Your task to perform on an android device: turn off smart reply in the gmail app Image 0: 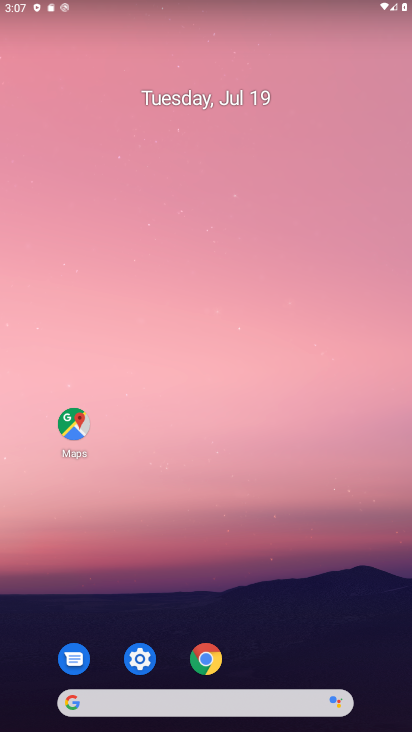
Step 0: drag from (246, 708) to (217, 258)
Your task to perform on an android device: turn off smart reply in the gmail app Image 1: 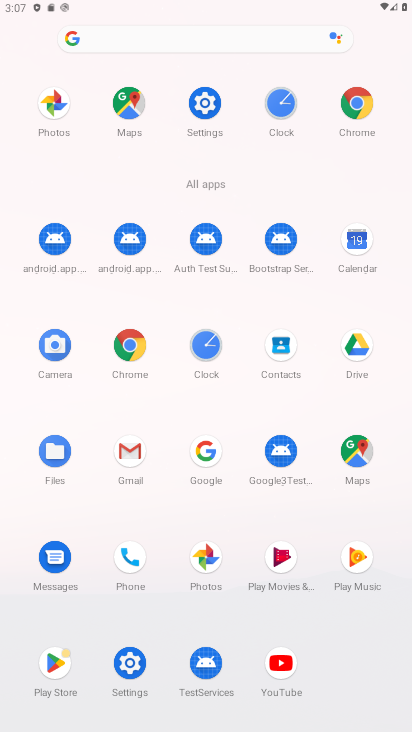
Step 1: click (132, 453)
Your task to perform on an android device: turn off smart reply in the gmail app Image 2: 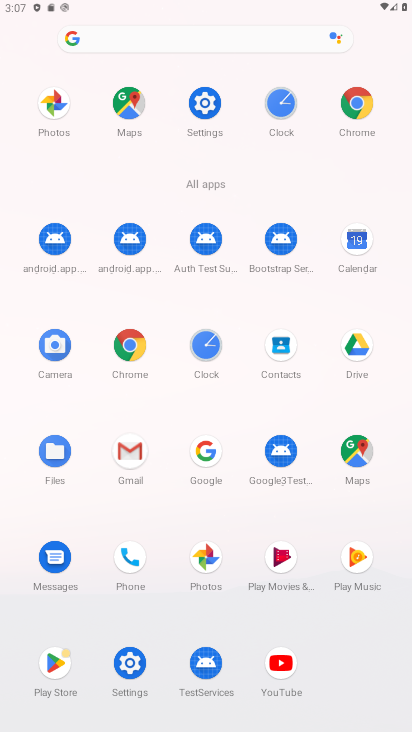
Step 2: click (133, 451)
Your task to perform on an android device: turn off smart reply in the gmail app Image 3: 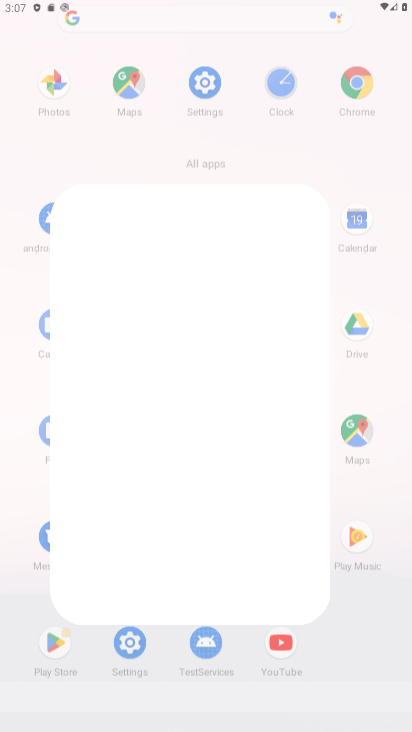
Step 3: click (135, 449)
Your task to perform on an android device: turn off smart reply in the gmail app Image 4: 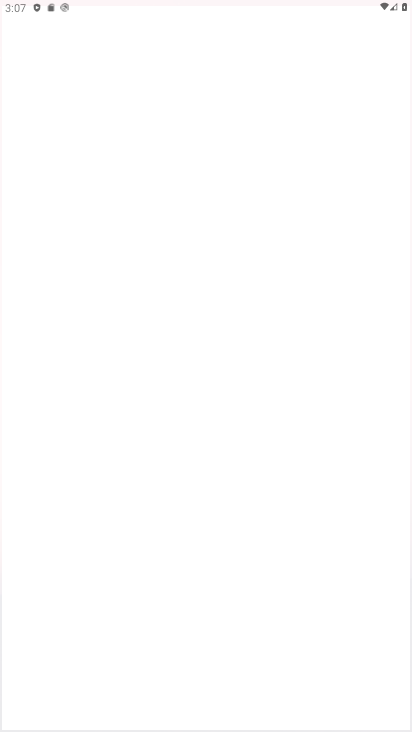
Step 4: click (135, 449)
Your task to perform on an android device: turn off smart reply in the gmail app Image 5: 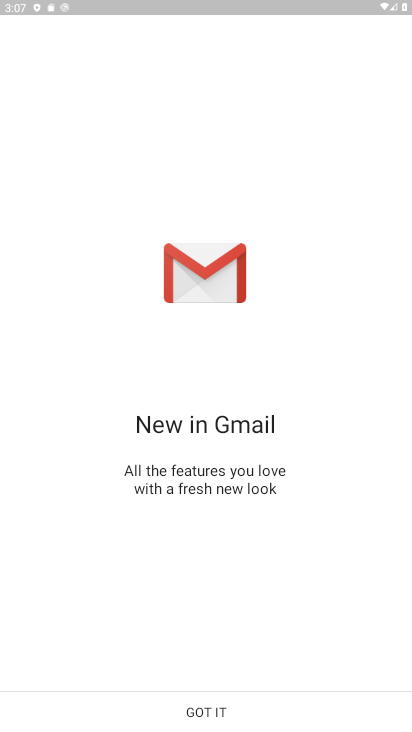
Step 5: click (211, 700)
Your task to perform on an android device: turn off smart reply in the gmail app Image 6: 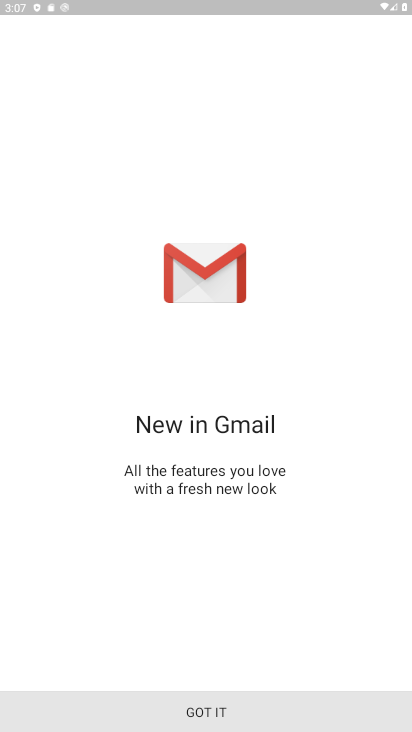
Step 6: click (212, 702)
Your task to perform on an android device: turn off smart reply in the gmail app Image 7: 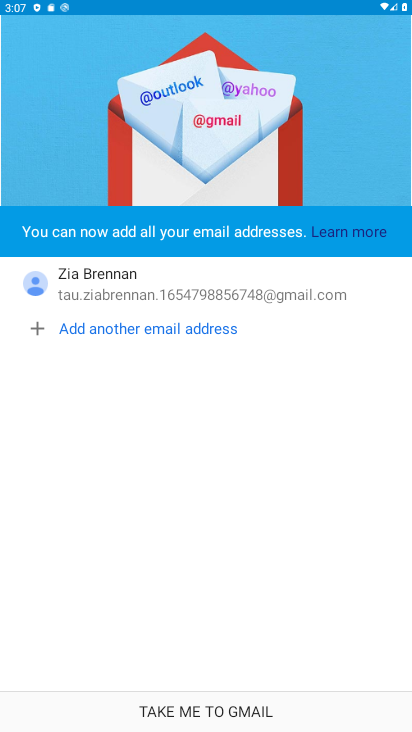
Step 7: click (218, 705)
Your task to perform on an android device: turn off smart reply in the gmail app Image 8: 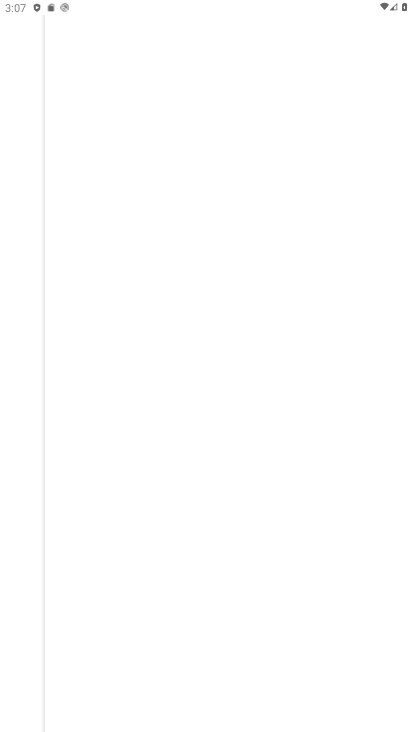
Step 8: click (226, 712)
Your task to perform on an android device: turn off smart reply in the gmail app Image 9: 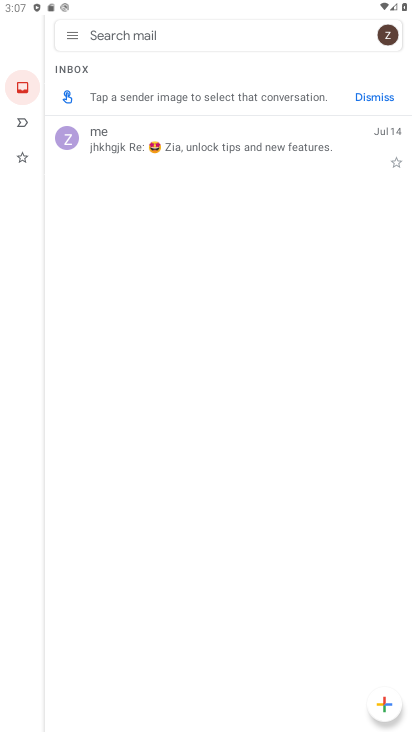
Step 9: click (62, 29)
Your task to perform on an android device: turn off smart reply in the gmail app Image 10: 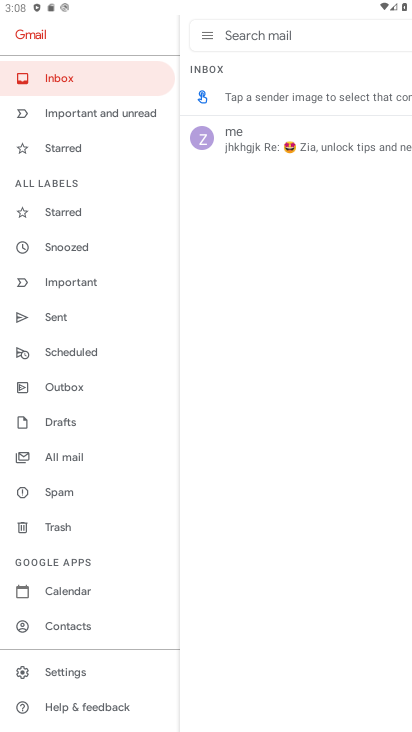
Step 10: click (48, 675)
Your task to perform on an android device: turn off smart reply in the gmail app Image 11: 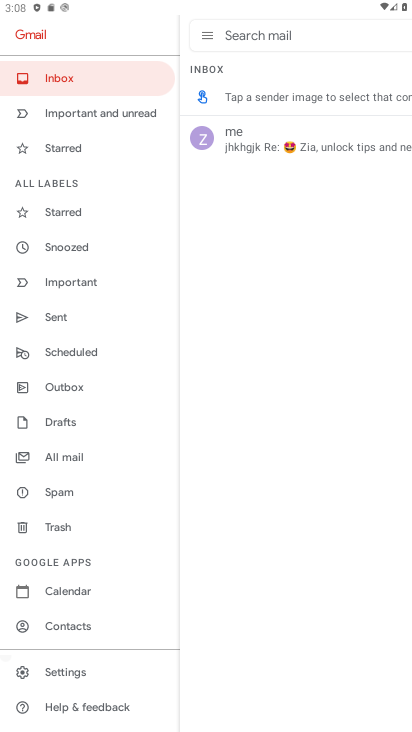
Step 11: click (55, 670)
Your task to perform on an android device: turn off smart reply in the gmail app Image 12: 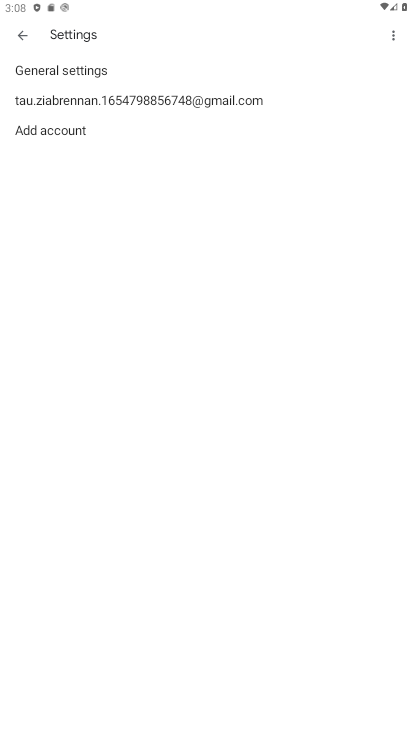
Step 12: click (109, 108)
Your task to perform on an android device: turn off smart reply in the gmail app Image 13: 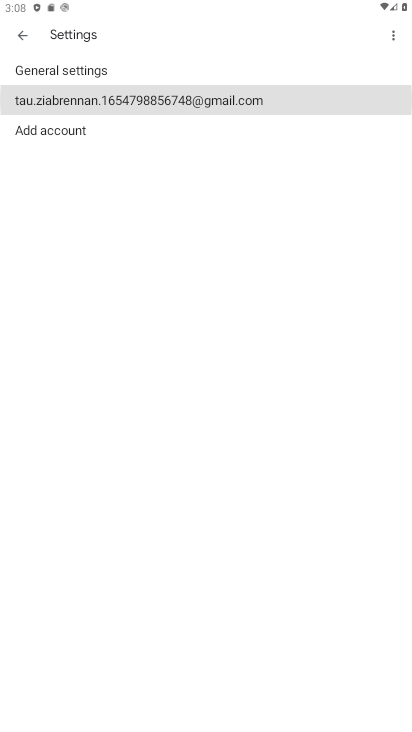
Step 13: click (108, 96)
Your task to perform on an android device: turn off smart reply in the gmail app Image 14: 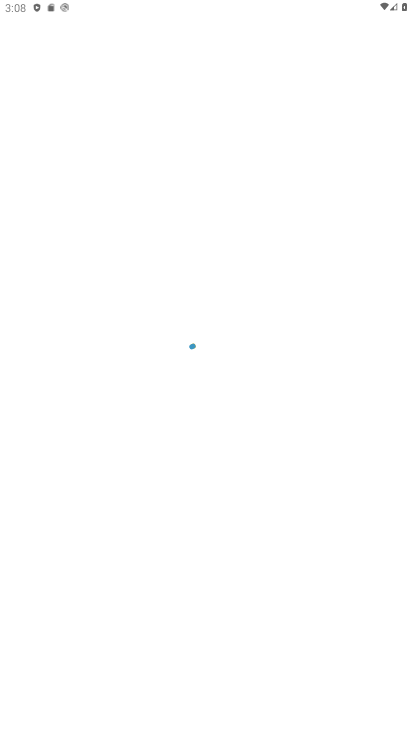
Step 14: press back button
Your task to perform on an android device: turn off smart reply in the gmail app Image 15: 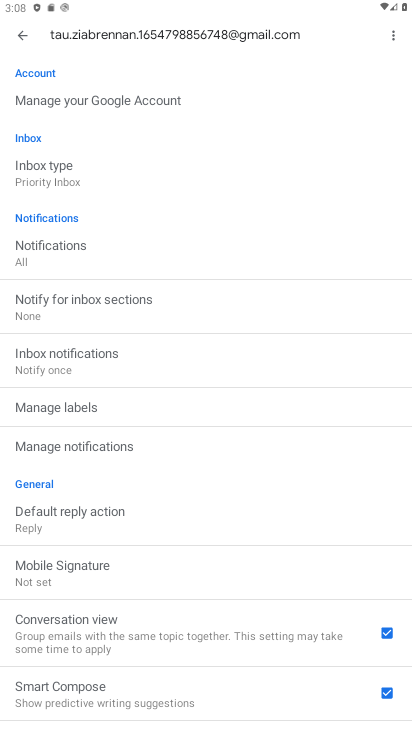
Step 15: drag from (76, 585) to (101, 301)
Your task to perform on an android device: turn off smart reply in the gmail app Image 16: 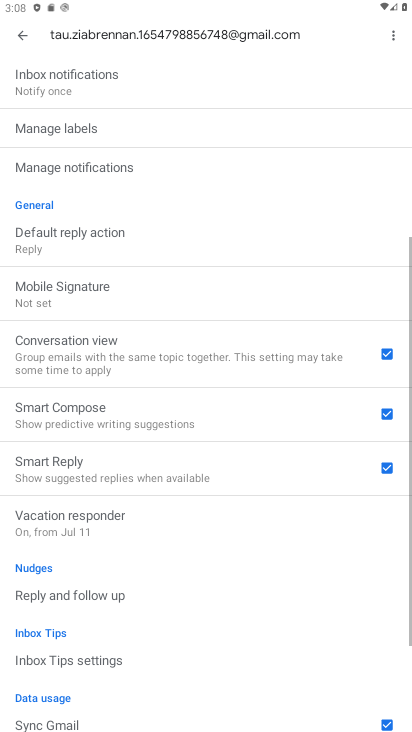
Step 16: drag from (123, 556) to (147, 376)
Your task to perform on an android device: turn off smart reply in the gmail app Image 17: 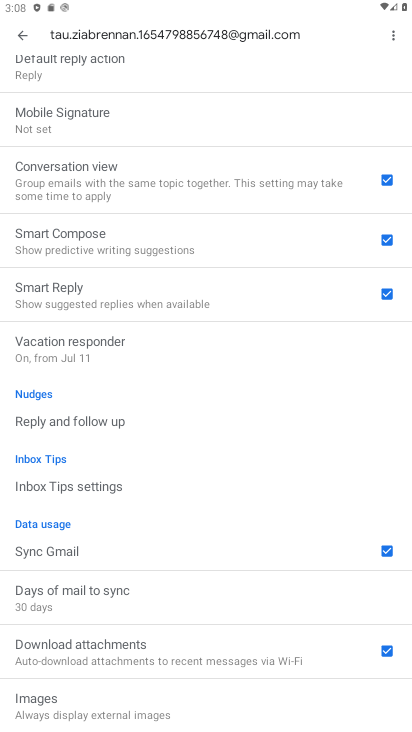
Step 17: click (386, 294)
Your task to perform on an android device: turn off smart reply in the gmail app Image 18: 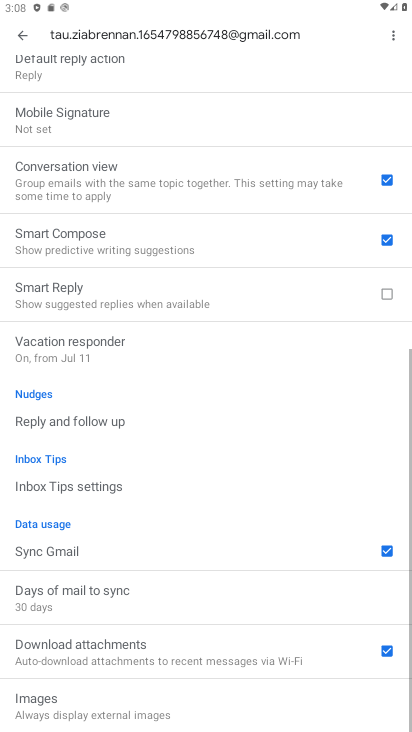
Step 18: task complete